Your task to perform on an android device: Open the map Image 0: 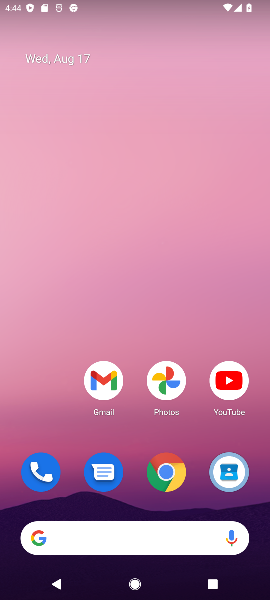
Step 0: drag from (129, 418) to (137, 9)
Your task to perform on an android device: Open the map Image 1: 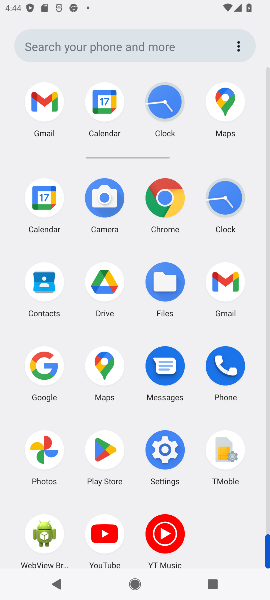
Step 1: click (225, 124)
Your task to perform on an android device: Open the map Image 2: 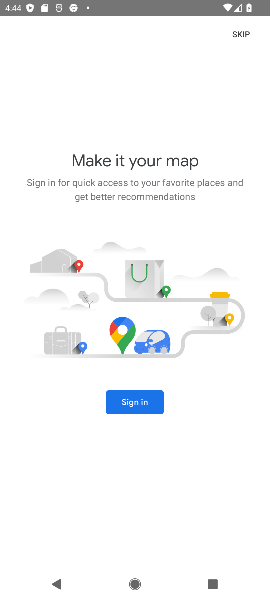
Step 2: task complete